Your task to perform on an android device: Search for Italian restaurants on Maps Image 0: 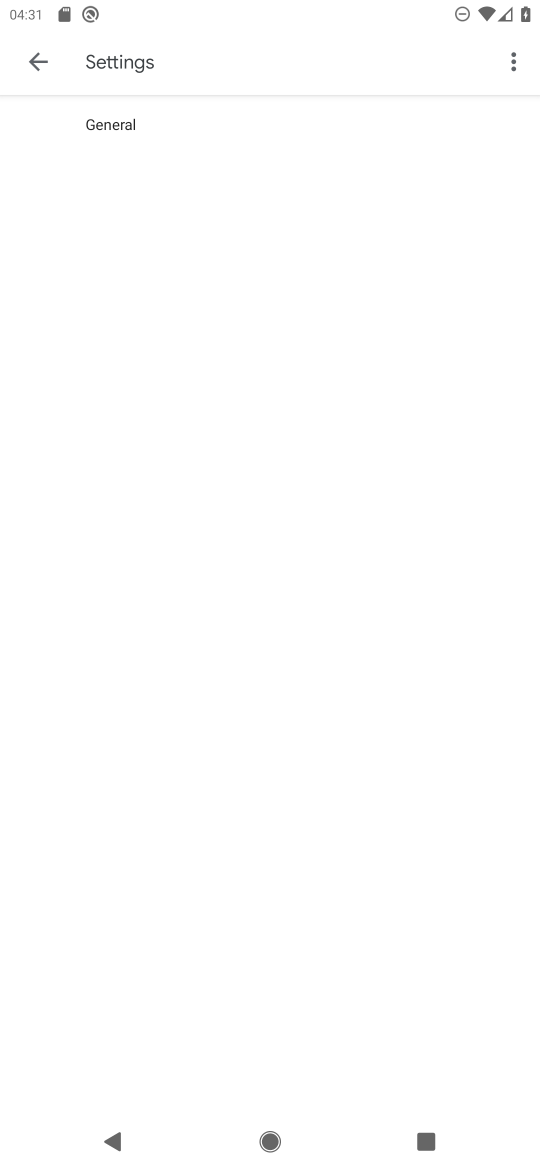
Step 0: press home button
Your task to perform on an android device: Search for Italian restaurants on Maps Image 1: 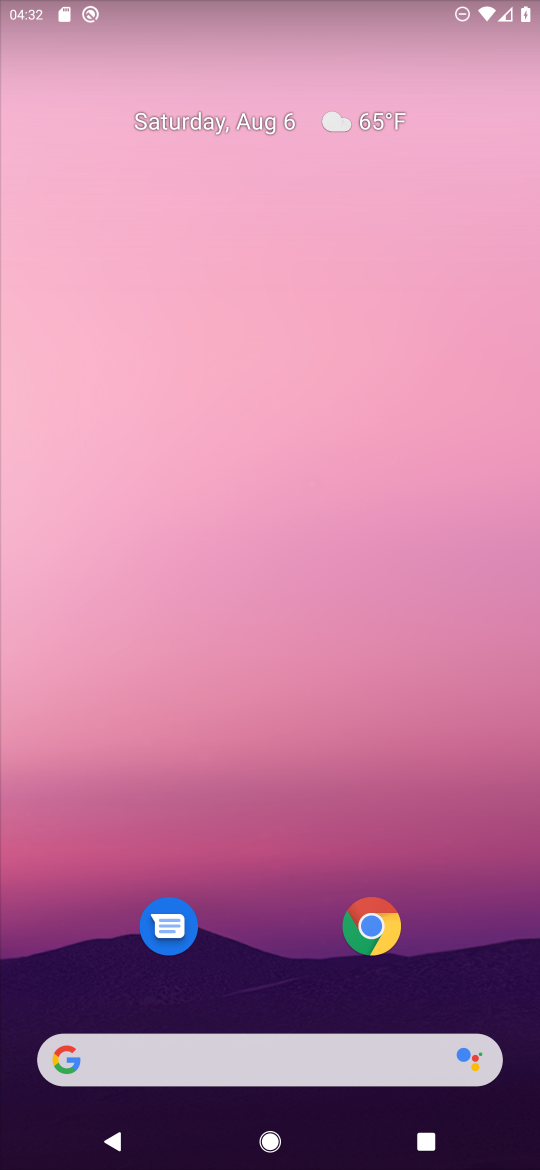
Step 1: drag from (298, 785) to (293, 293)
Your task to perform on an android device: Search for Italian restaurants on Maps Image 2: 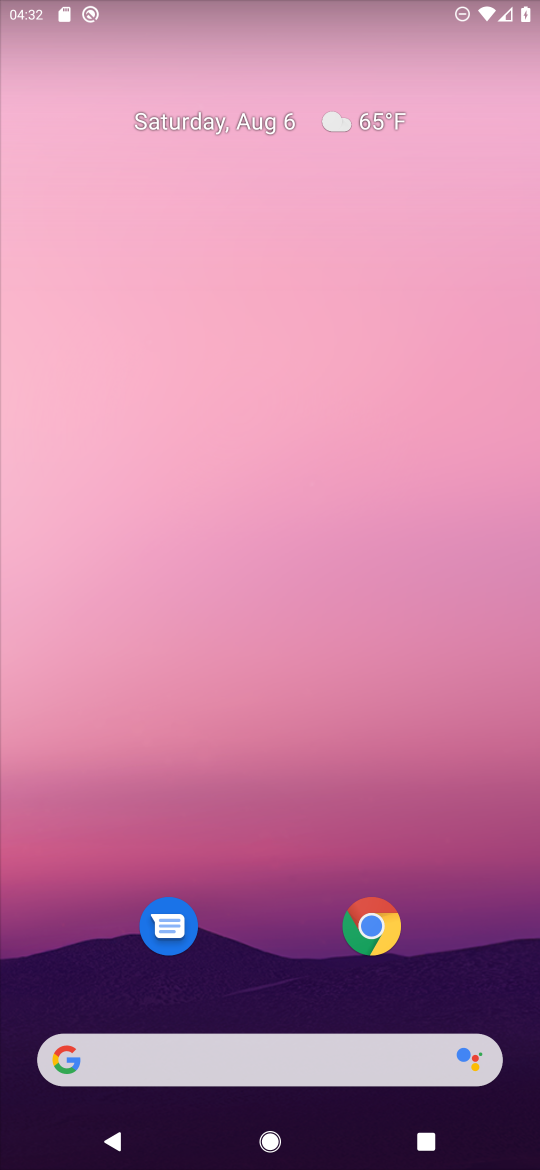
Step 2: drag from (259, 815) to (259, 284)
Your task to perform on an android device: Search for Italian restaurants on Maps Image 3: 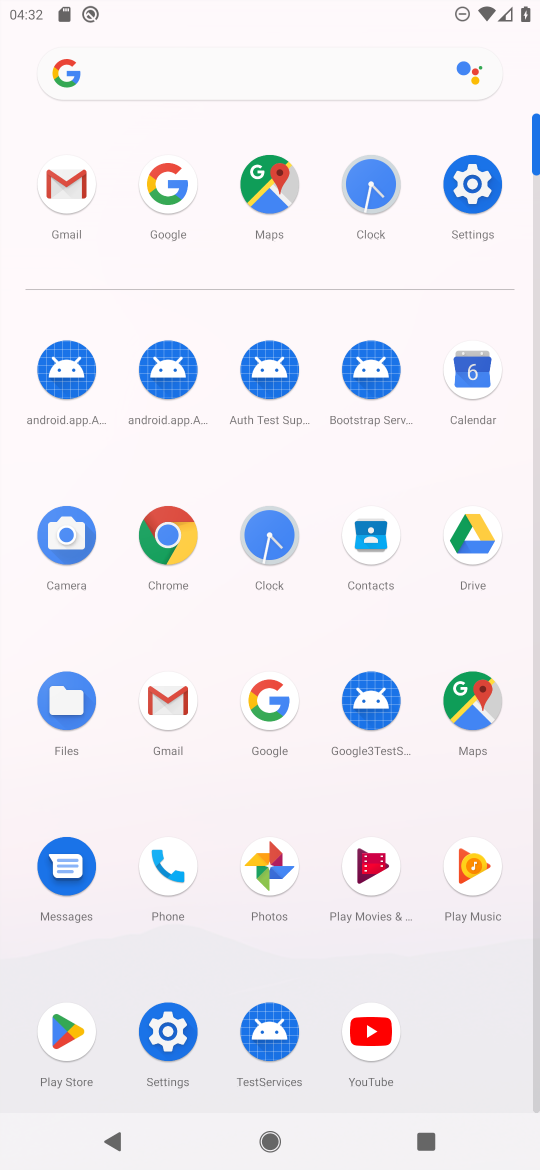
Step 3: click (258, 207)
Your task to perform on an android device: Search for Italian restaurants on Maps Image 4: 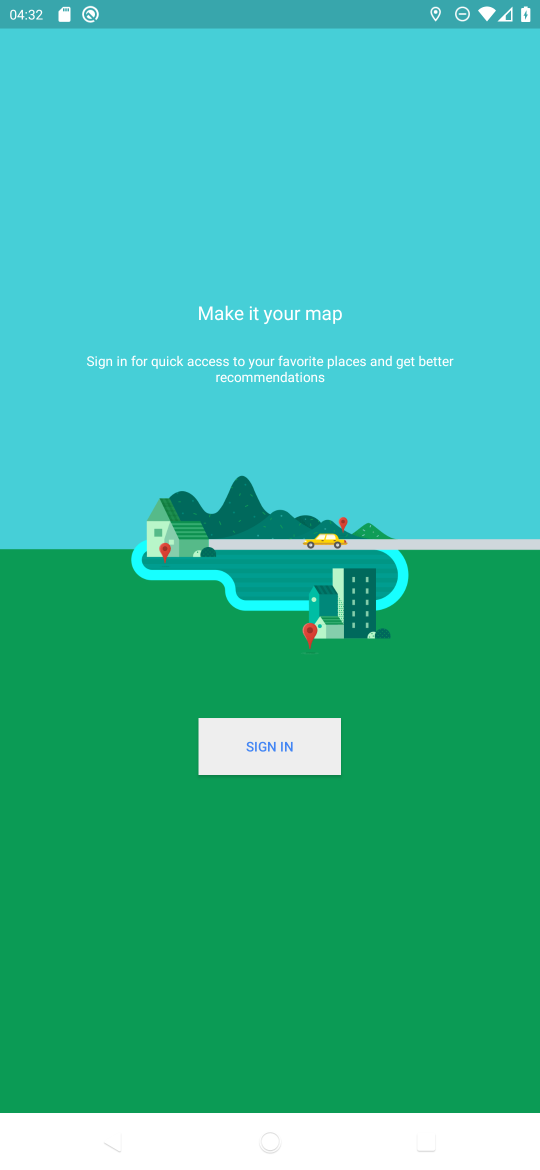
Step 4: task complete